Your task to perform on an android device: Install the Spotify app Image 0: 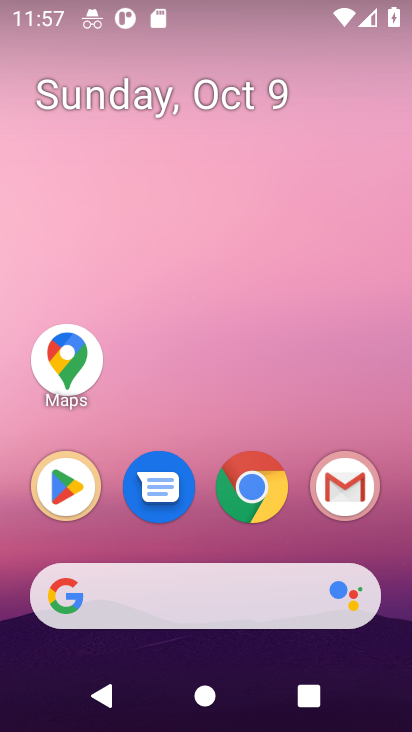
Step 0: click (63, 492)
Your task to perform on an android device: Install the Spotify app Image 1: 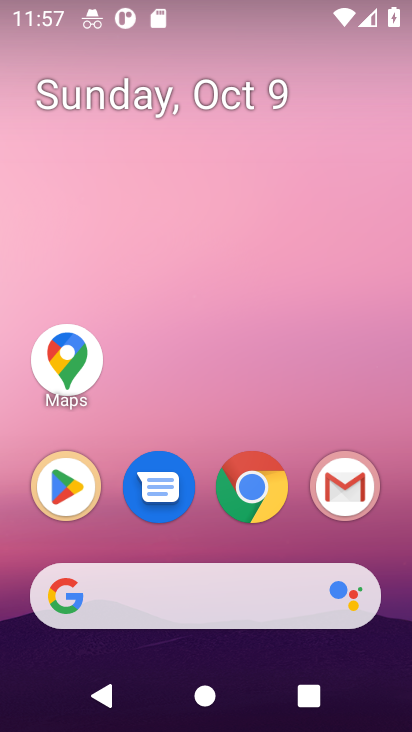
Step 1: click (63, 467)
Your task to perform on an android device: Install the Spotify app Image 2: 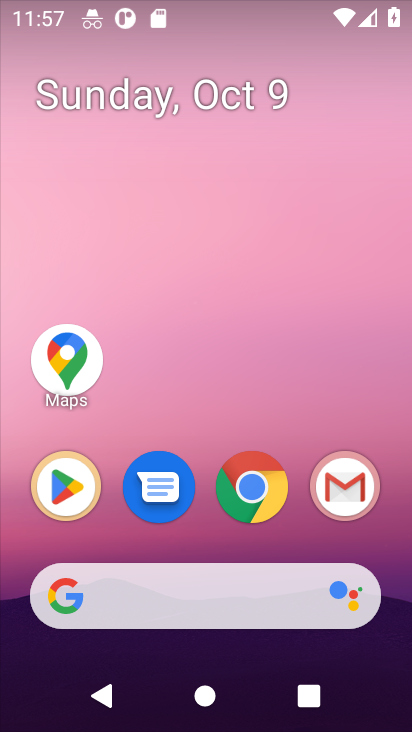
Step 2: click (55, 500)
Your task to perform on an android device: Install the Spotify app Image 3: 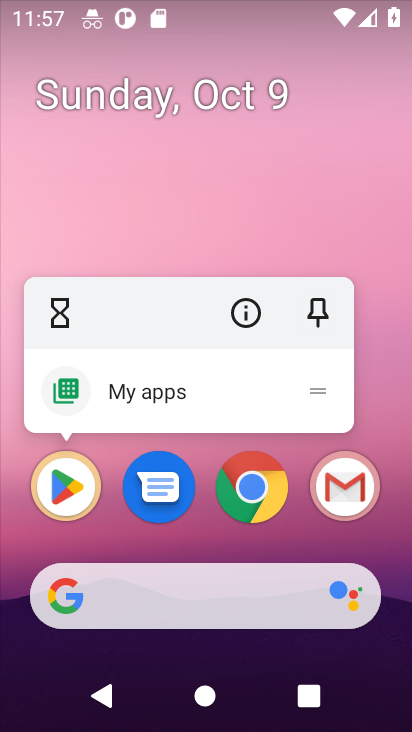
Step 3: click (57, 501)
Your task to perform on an android device: Install the Spotify app Image 4: 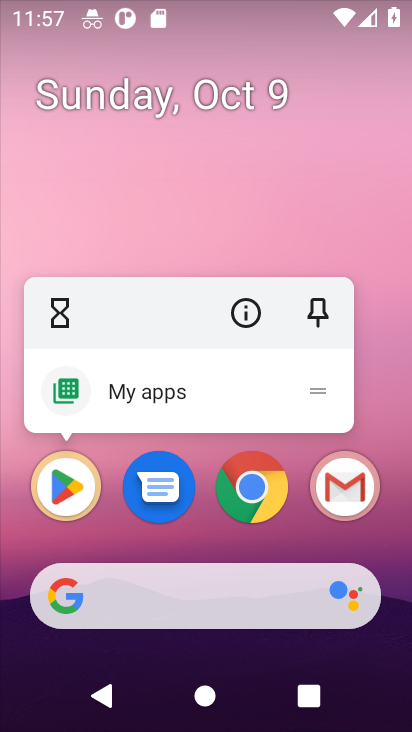
Step 4: click (58, 501)
Your task to perform on an android device: Install the Spotify app Image 5: 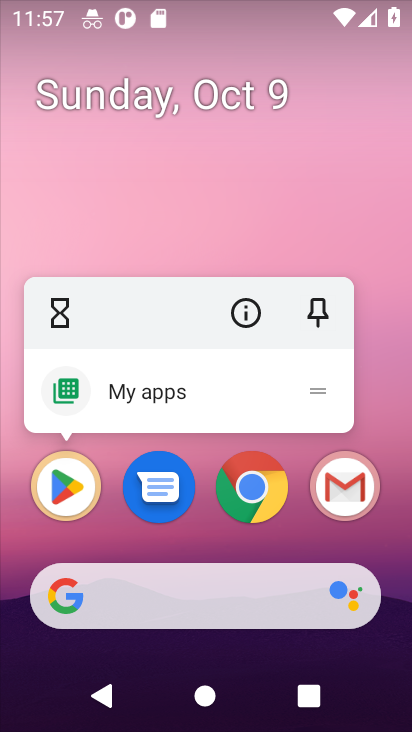
Step 5: click (58, 501)
Your task to perform on an android device: Install the Spotify app Image 6: 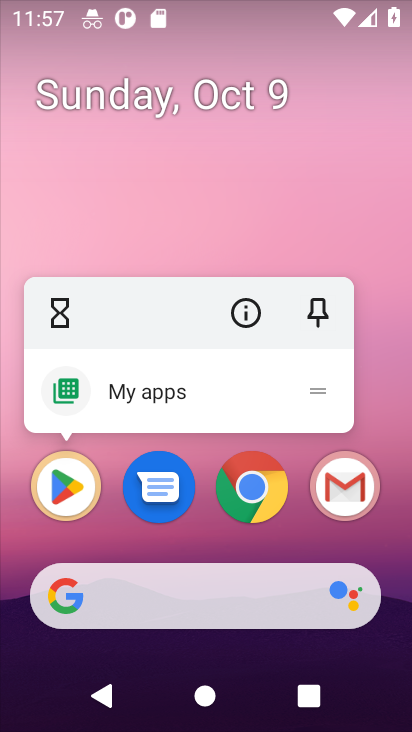
Step 6: task complete